Your task to perform on an android device: Open the stopwatch Image 0: 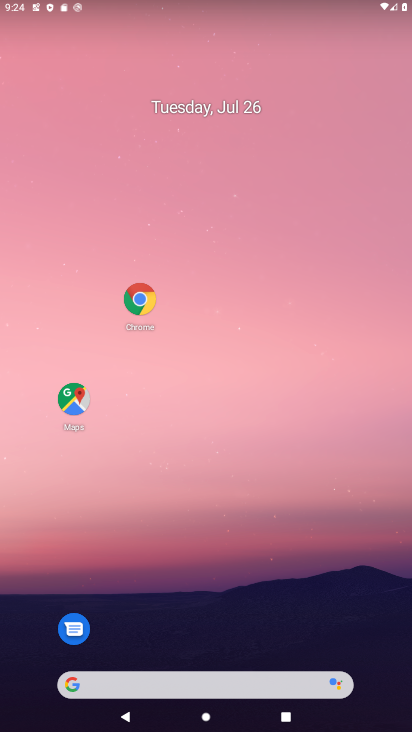
Step 0: drag from (200, 568) to (199, 148)
Your task to perform on an android device: Open the stopwatch Image 1: 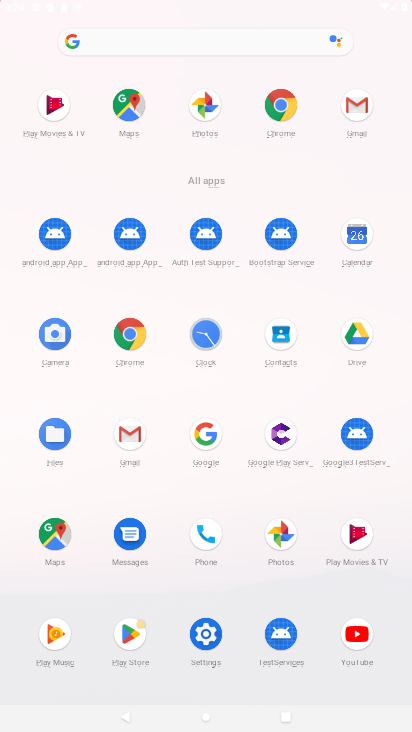
Step 1: drag from (181, 581) to (167, 147)
Your task to perform on an android device: Open the stopwatch Image 2: 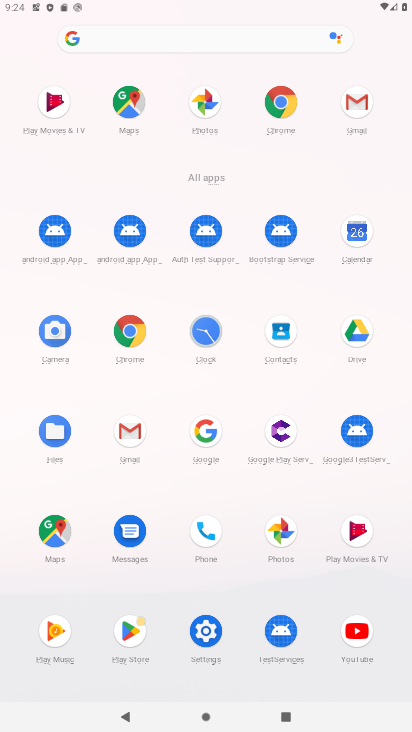
Step 2: click (212, 336)
Your task to perform on an android device: Open the stopwatch Image 3: 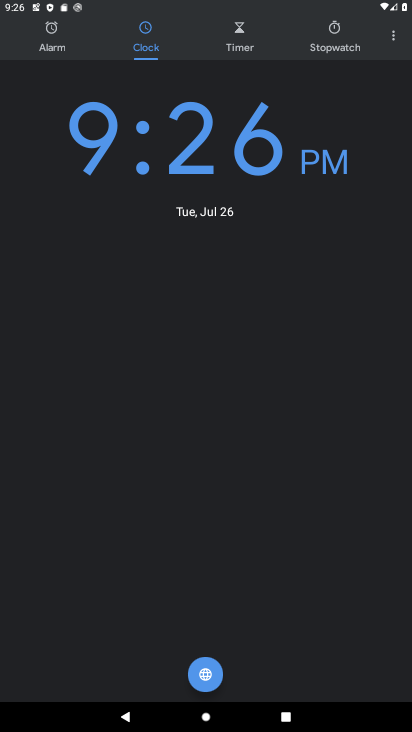
Step 3: click (330, 36)
Your task to perform on an android device: Open the stopwatch Image 4: 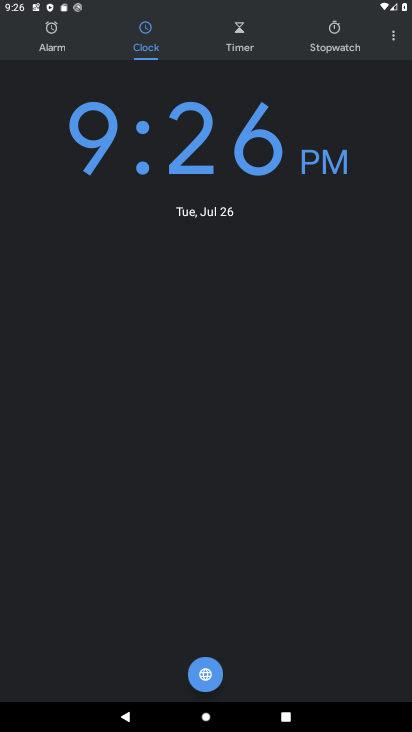
Step 4: click (330, 36)
Your task to perform on an android device: Open the stopwatch Image 5: 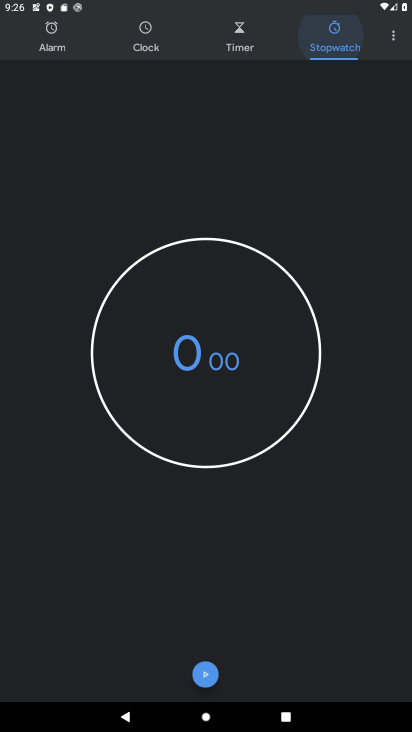
Step 5: click (330, 36)
Your task to perform on an android device: Open the stopwatch Image 6: 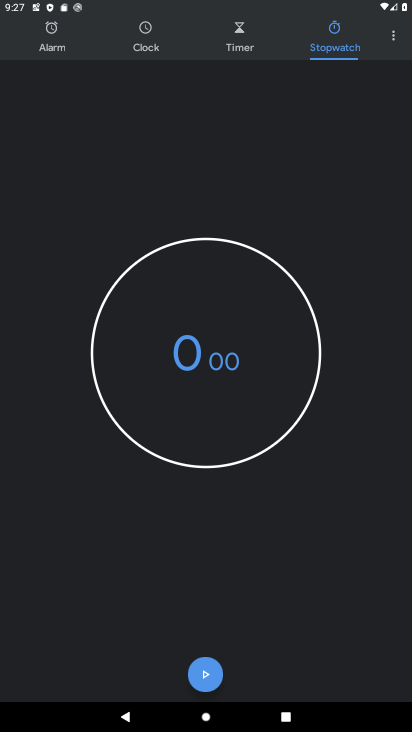
Step 6: click (201, 675)
Your task to perform on an android device: Open the stopwatch Image 7: 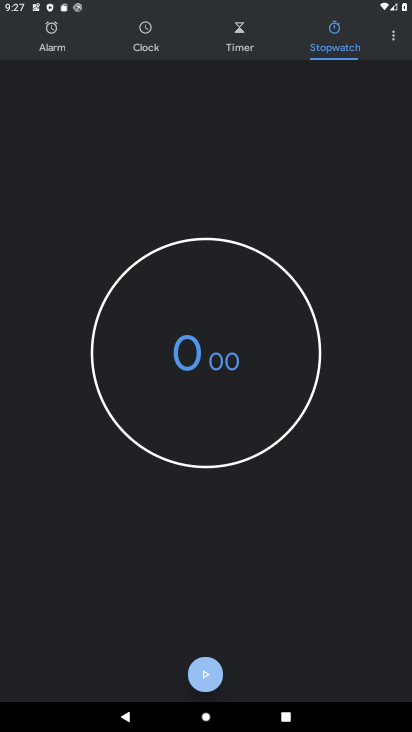
Step 7: click (201, 675)
Your task to perform on an android device: Open the stopwatch Image 8: 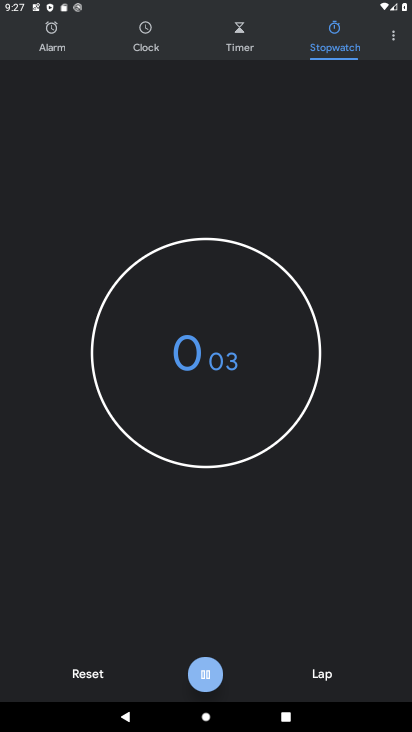
Step 8: click (201, 675)
Your task to perform on an android device: Open the stopwatch Image 9: 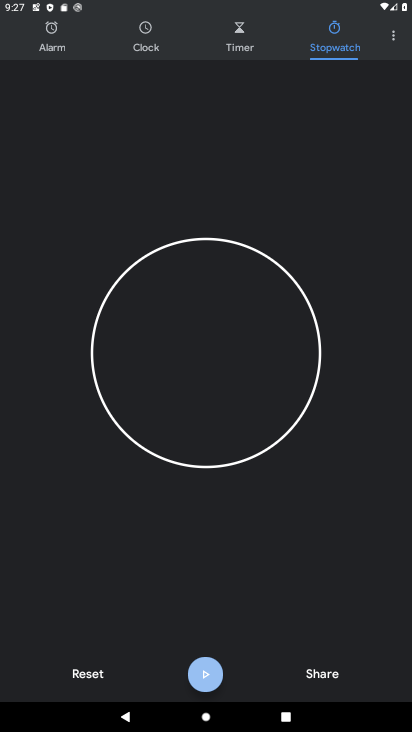
Step 9: click (201, 675)
Your task to perform on an android device: Open the stopwatch Image 10: 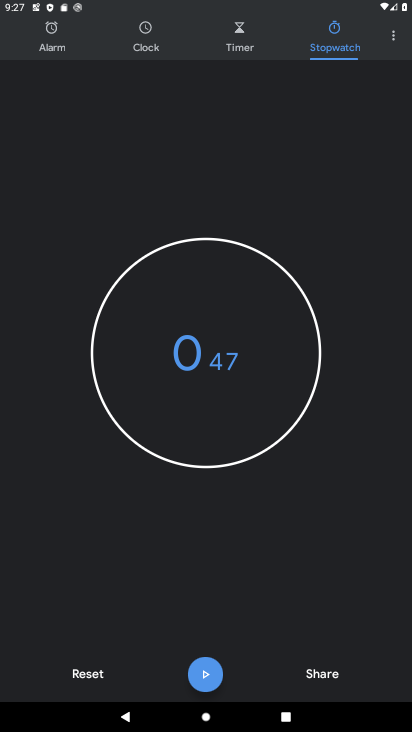
Step 10: click (209, 653)
Your task to perform on an android device: Open the stopwatch Image 11: 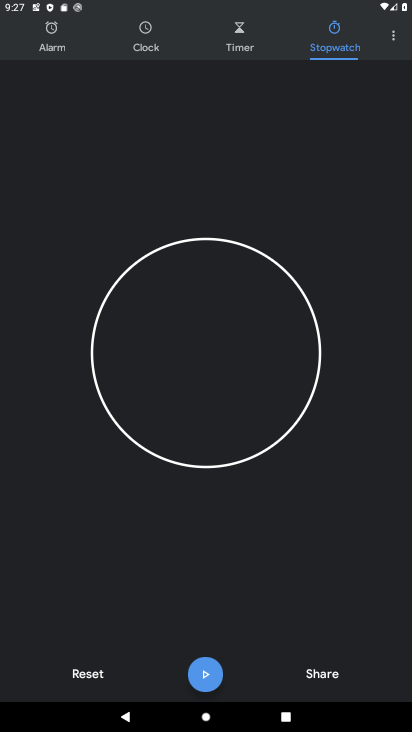
Step 11: click (212, 654)
Your task to perform on an android device: Open the stopwatch Image 12: 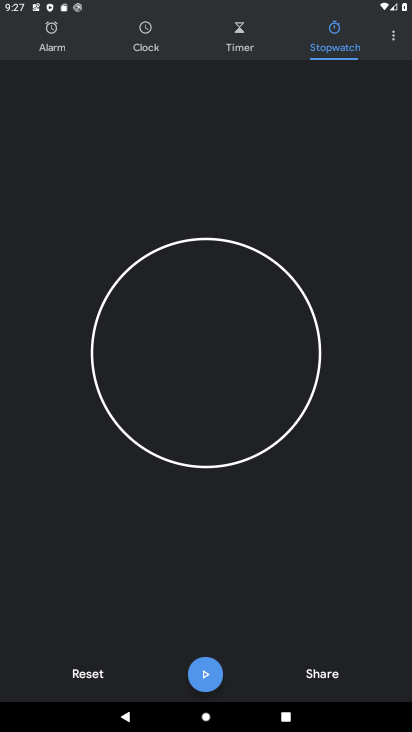
Step 12: click (204, 672)
Your task to perform on an android device: Open the stopwatch Image 13: 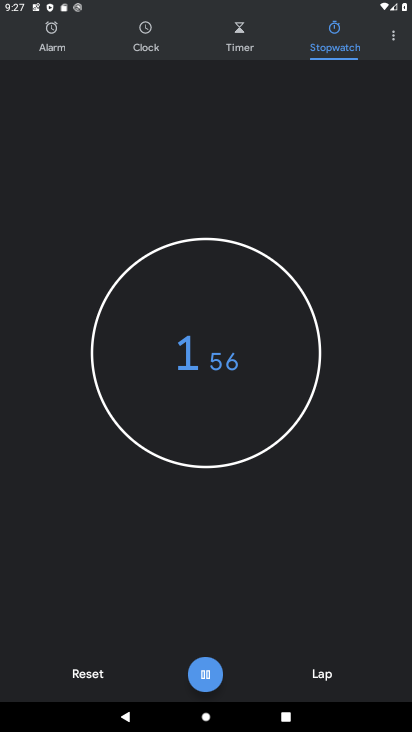
Step 13: click (204, 672)
Your task to perform on an android device: Open the stopwatch Image 14: 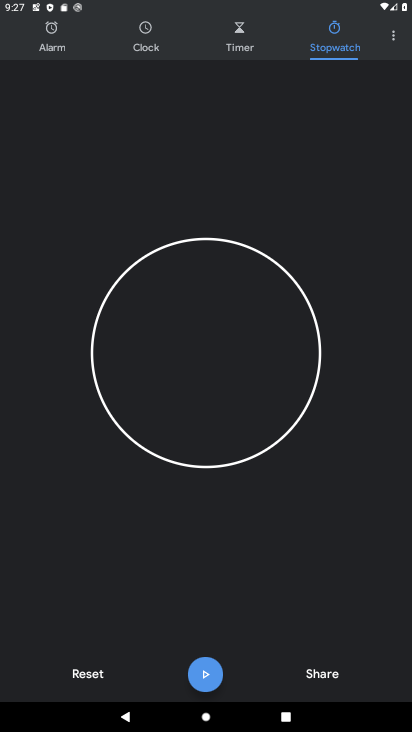
Step 14: click (204, 672)
Your task to perform on an android device: Open the stopwatch Image 15: 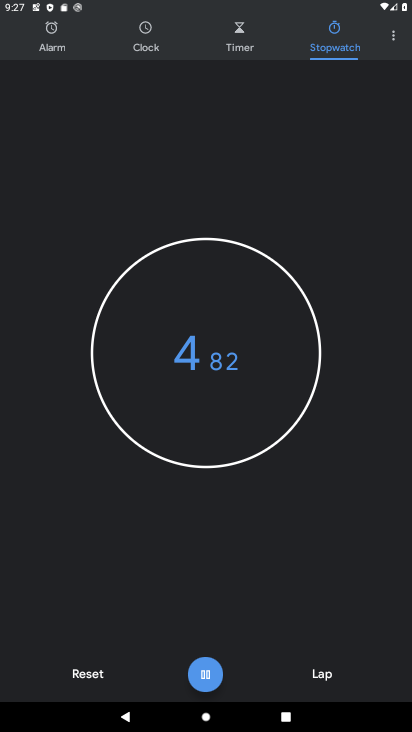
Step 15: click (201, 670)
Your task to perform on an android device: Open the stopwatch Image 16: 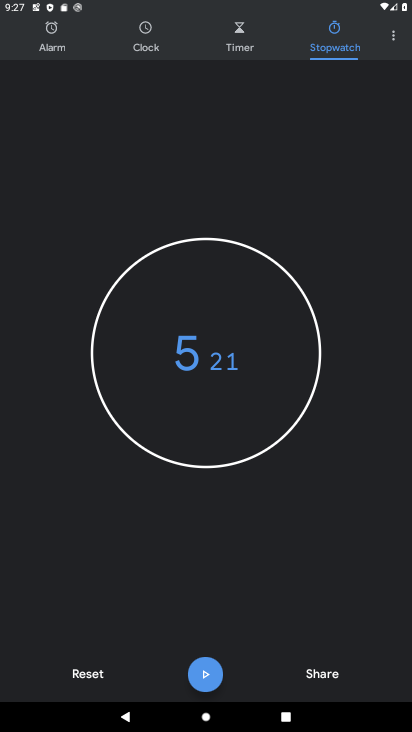
Step 16: task complete